Your task to perform on an android device: Open Android settings Image 0: 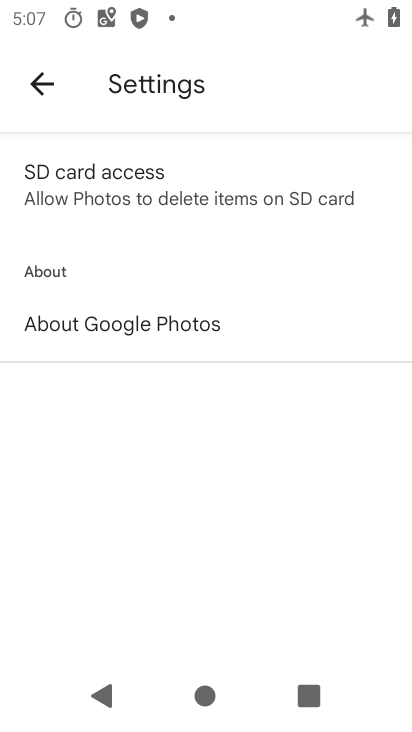
Step 0: press home button
Your task to perform on an android device: Open Android settings Image 1: 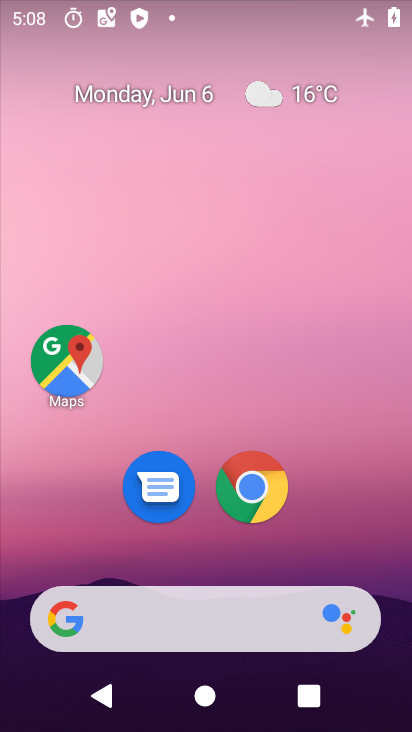
Step 1: drag from (345, 490) to (364, 31)
Your task to perform on an android device: Open Android settings Image 2: 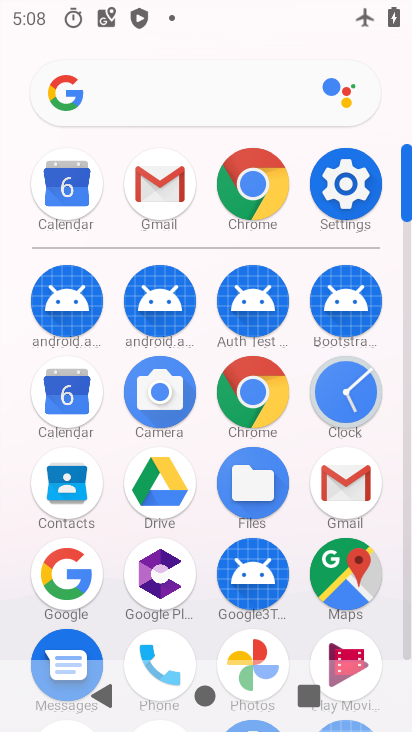
Step 2: click (345, 202)
Your task to perform on an android device: Open Android settings Image 3: 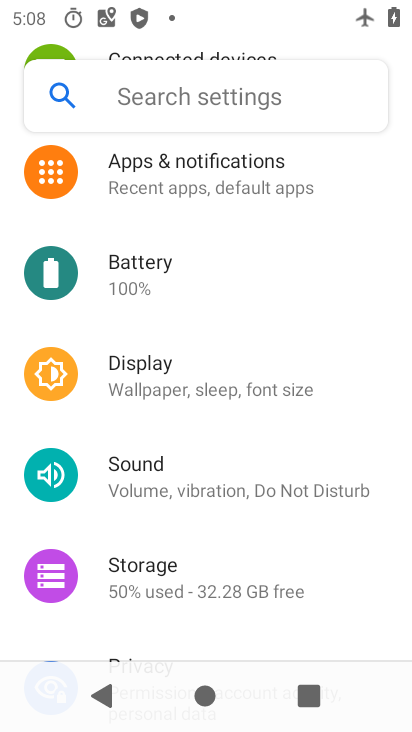
Step 3: task complete